Your task to perform on an android device: Open Google Maps and go to "Timeline" Image 0: 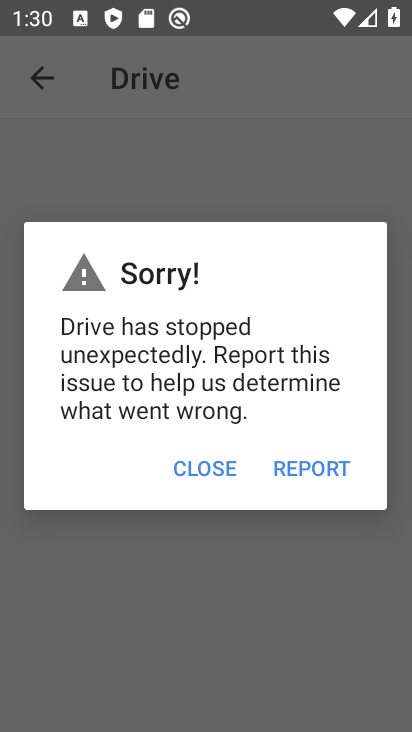
Step 0: press home button
Your task to perform on an android device: Open Google Maps and go to "Timeline" Image 1: 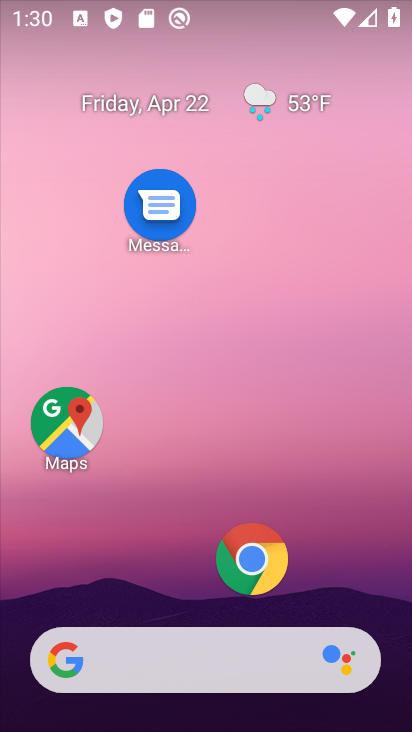
Step 1: click (56, 416)
Your task to perform on an android device: Open Google Maps and go to "Timeline" Image 2: 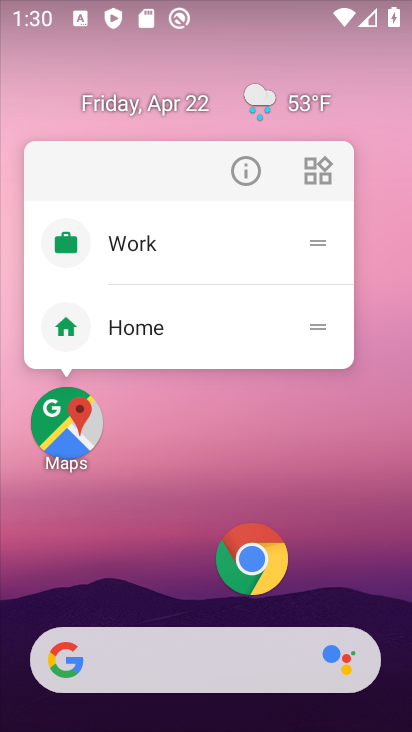
Step 2: click (66, 432)
Your task to perform on an android device: Open Google Maps and go to "Timeline" Image 3: 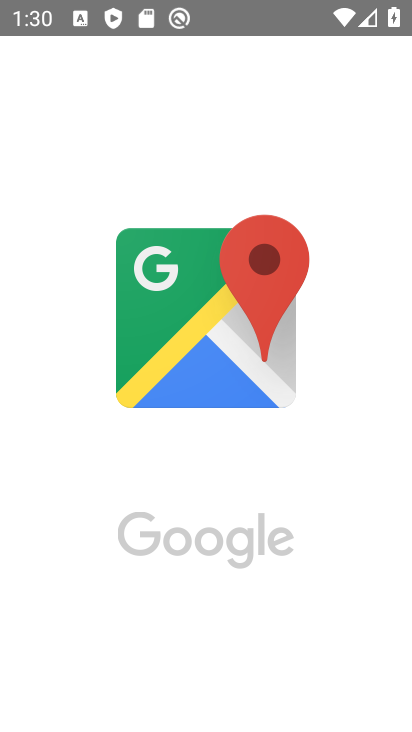
Step 3: click (50, 433)
Your task to perform on an android device: Open Google Maps and go to "Timeline" Image 4: 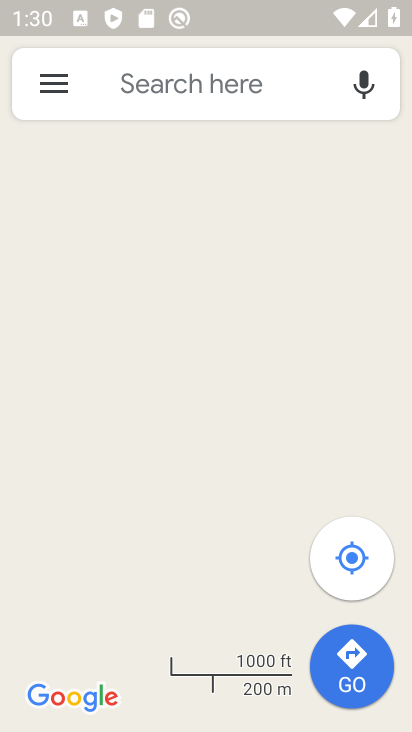
Step 4: click (39, 85)
Your task to perform on an android device: Open Google Maps and go to "Timeline" Image 5: 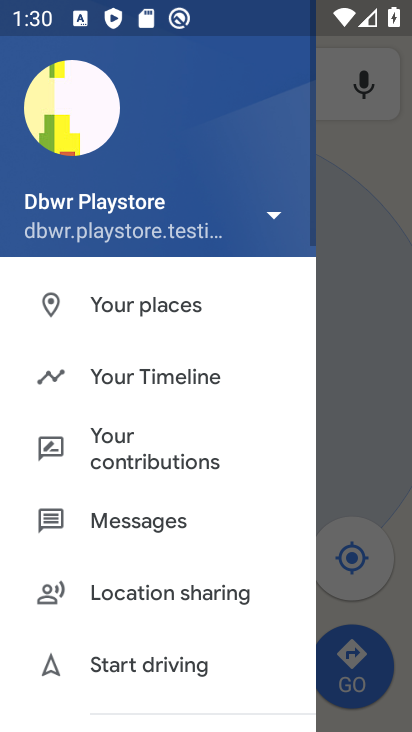
Step 5: click (115, 368)
Your task to perform on an android device: Open Google Maps and go to "Timeline" Image 6: 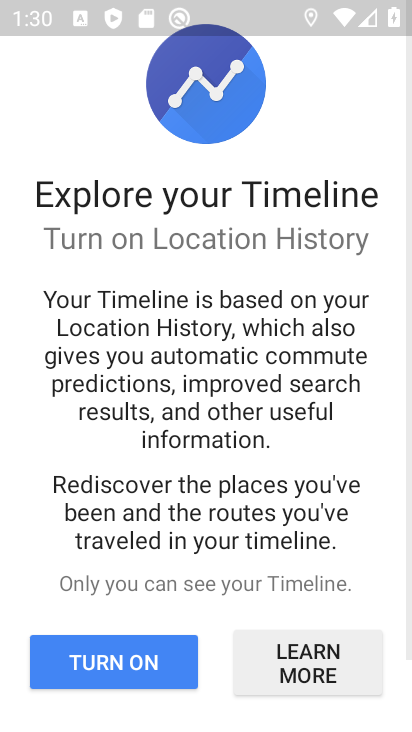
Step 6: click (309, 657)
Your task to perform on an android device: Open Google Maps and go to "Timeline" Image 7: 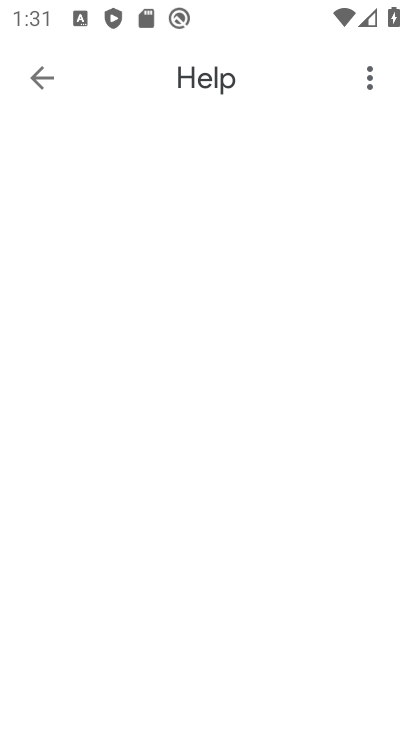
Step 7: task complete